Your task to perform on an android device: open app "DoorDash - Dasher" (install if not already installed) Image 0: 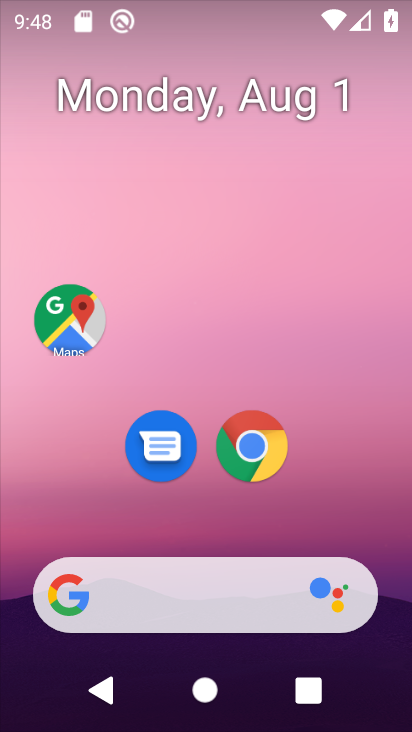
Step 0: drag from (231, 529) to (194, 53)
Your task to perform on an android device: open app "DoorDash - Dasher" (install if not already installed) Image 1: 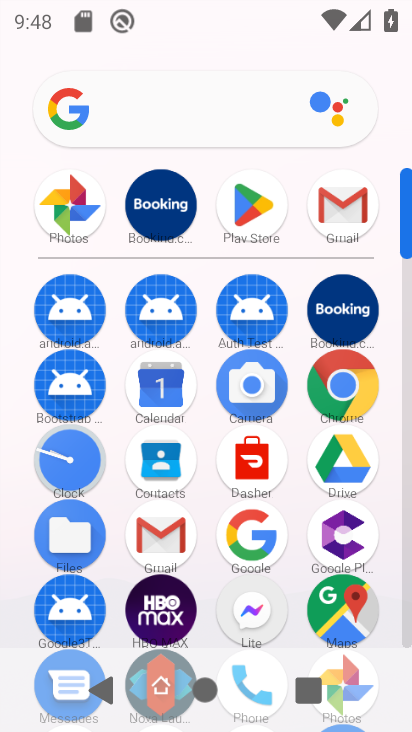
Step 1: click (261, 203)
Your task to perform on an android device: open app "DoorDash - Dasher" (install if not already installed) Image 2: 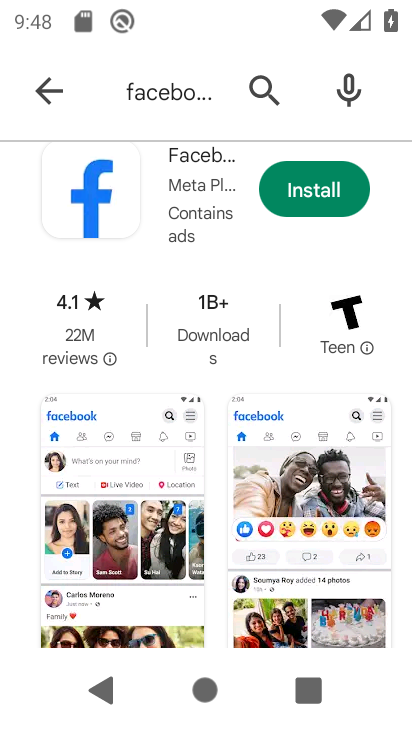
Step 2: click (258, 94)
Your task to perform on an android device: open app "DoorDash - Dasher" (install if not already installed) Image 3: 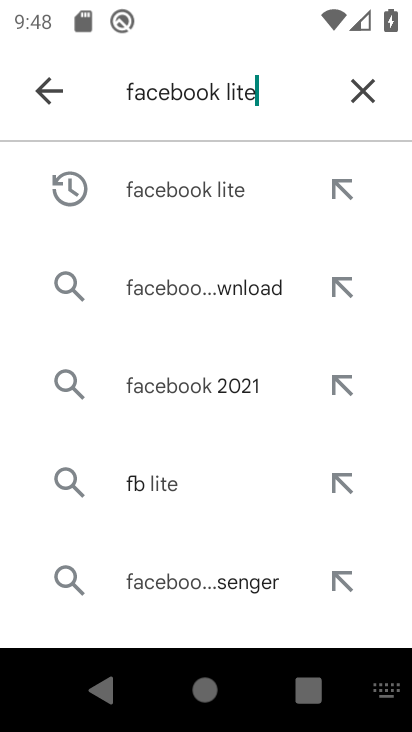
Step 3: click (355, 84)
Your task to perform on an android device: open app "DoorDash - Dasher" (install if not already installed) Image 4: 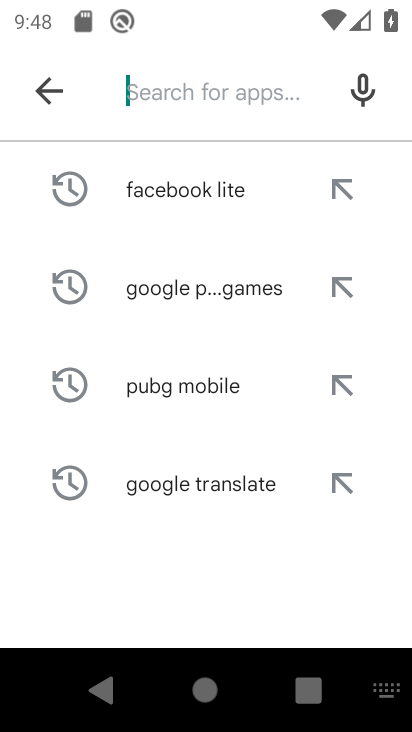
Step 4: type "DoorDash - Dasher"
Your task to perform on an android device: open app "DoorDash - Dasher" (install if not already installed) Image 5: 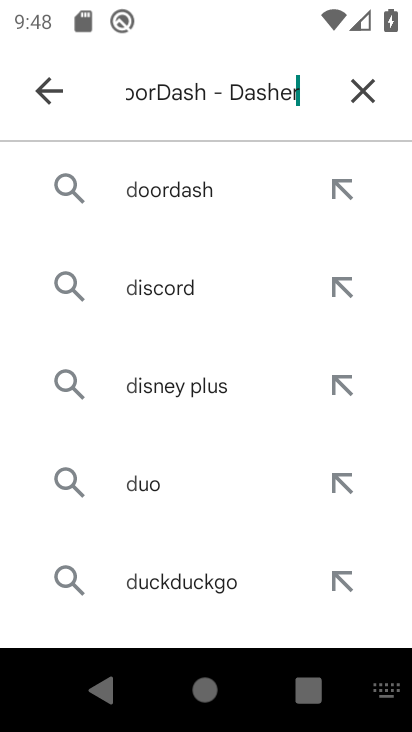
Step 5: type ""
Your task to perform on an android device: open app "DoorDash - Dasher" (install if not already installed) Image 6: 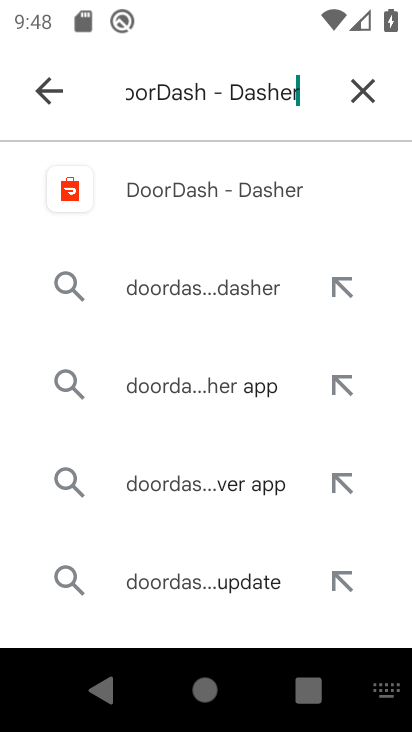
Step 6: click (225, 189)
Your task to perform on an android device: open app "DoorDash - Dasher" (install if not already installed) Image 7: 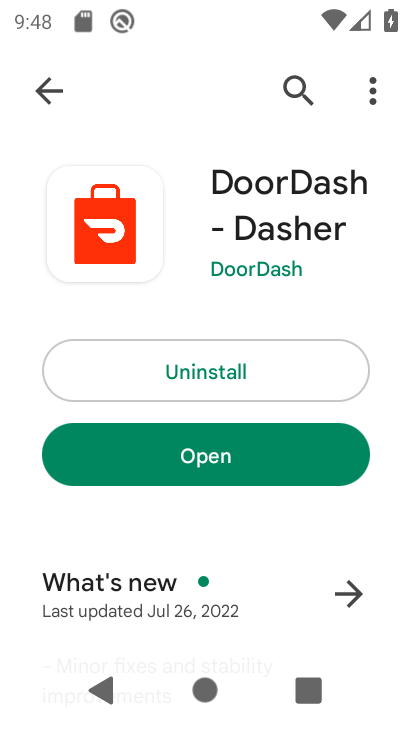
Step 7: click (270, 456)
Your task to perform on an android device: open app "DoorDash - Dasher" (install if not already installed) Image 8: 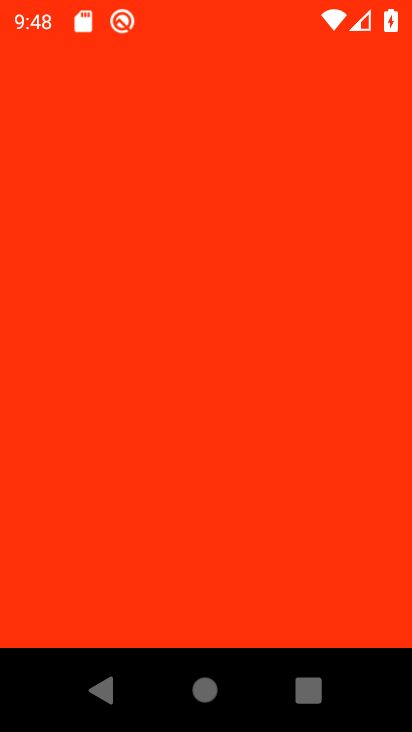
Step 8: task complete